Your task to perform on an android device: Turn on the flashlight Image 0: 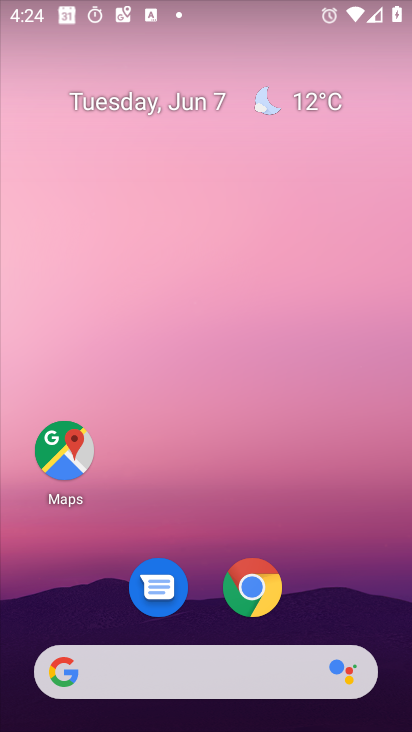
Step 0: drag from (345, 608) to (292, 28)
Your task to perform on an android device: Turn on the flashlight Image 1: 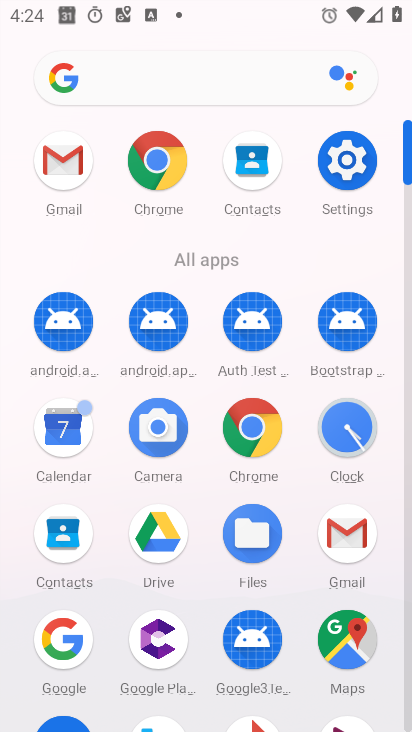
Step 1: task complete